Your task to perform on an android device: Search for the best rated wireless headphones on Amazon. Image 0: 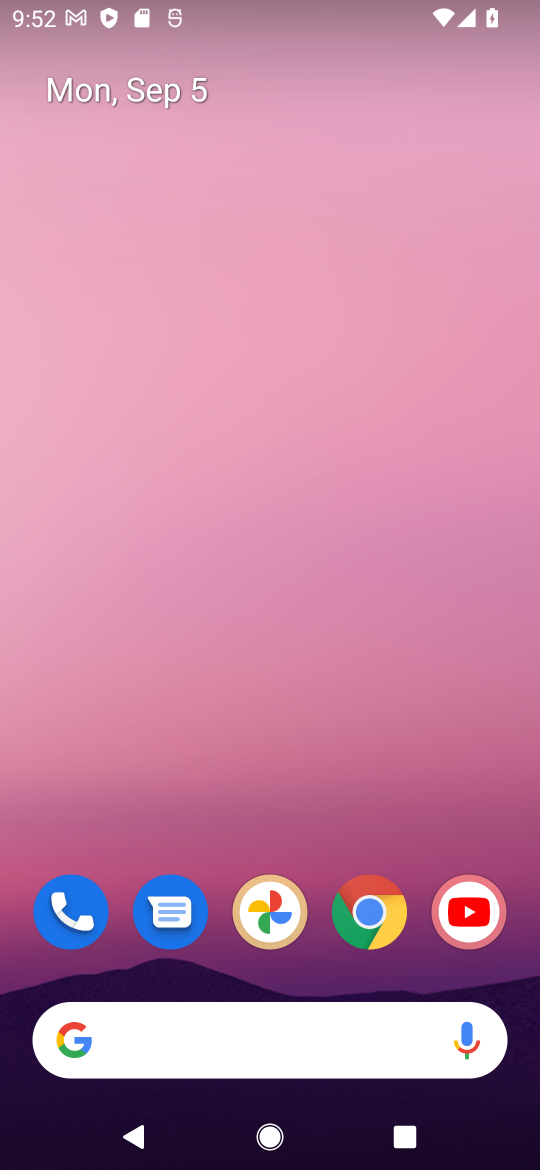
Step 0: click (368, 920)
Your task to perform on an android device: Search for the best rated wireless headphones on Amazon. Image 1: 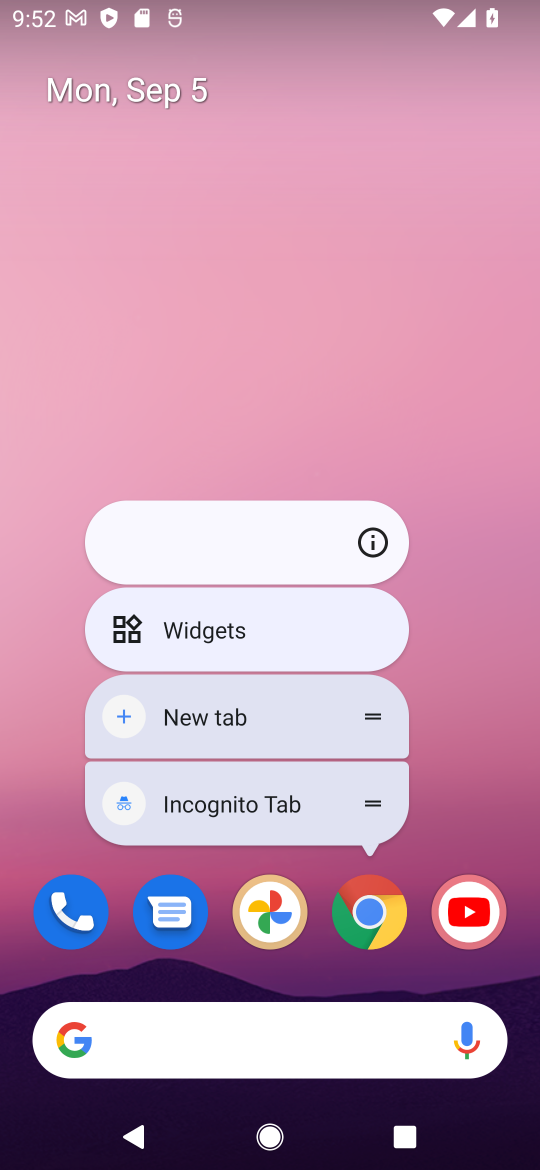
Step 1: click (370, 916)
Your task to perform on an android device: Search for the best rated wireless headphones on Amazon. Image 2: 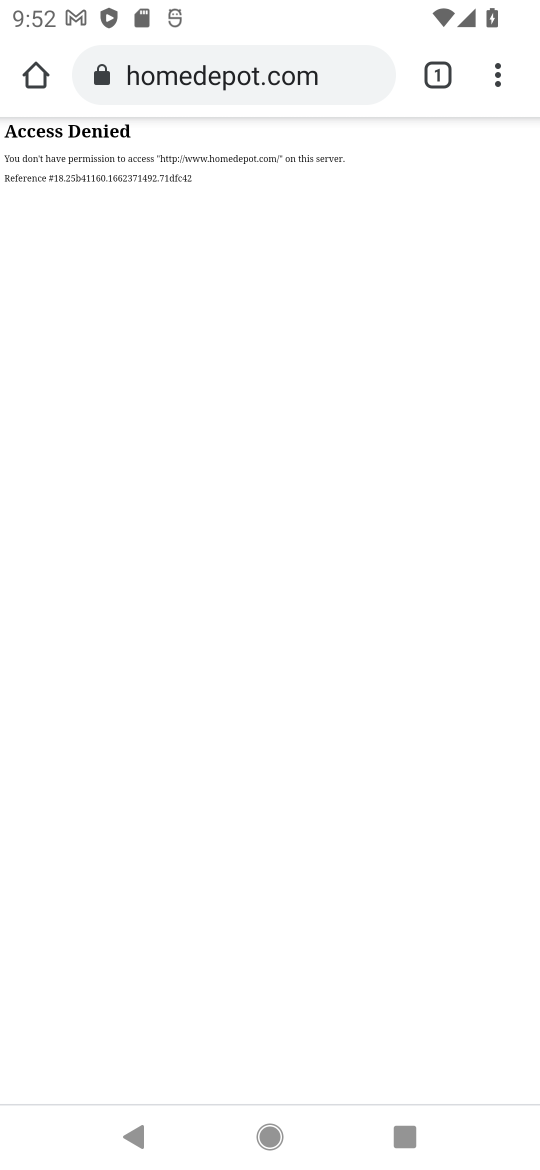
Step 2: click (256, 87)
Your task to perform on an android device: Search for the best rated wireless headphones on Amazon. Image 3: 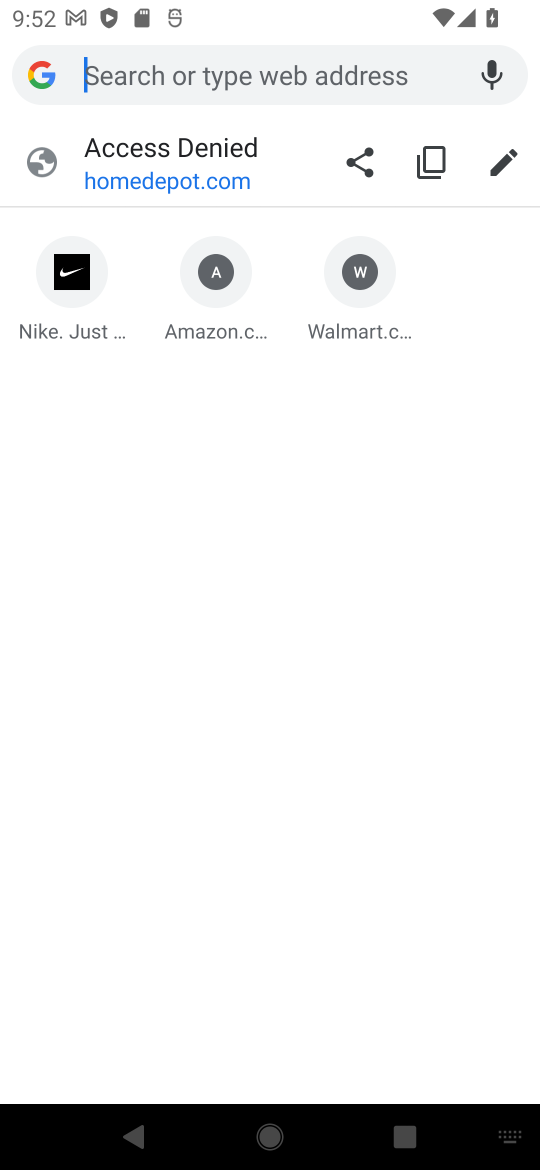
Step 3: type "amazon"
Your task to perform on an android device: Search for the best rated wireless headphones on Amazon. Image 4: 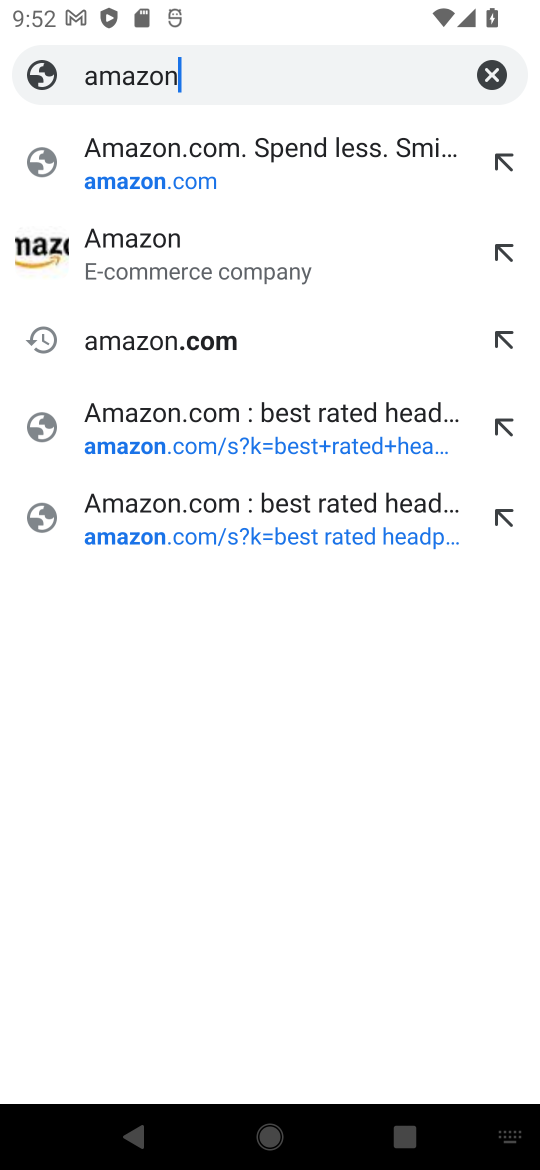
Step 4: click (145, 187)
Your task to perform on an android device: Search for the best rated wireless headphones on Amazon. Image 5: 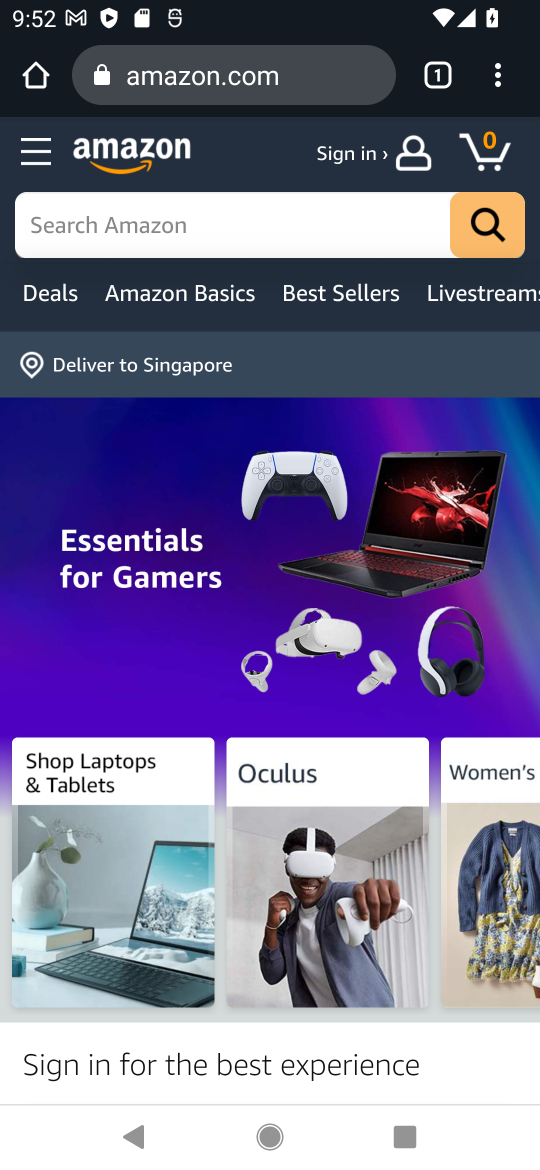
Step 5: click (181, 222)
Your task to perform on an android device: Search for the best rated wireless headphones on Amazon. Image 6: 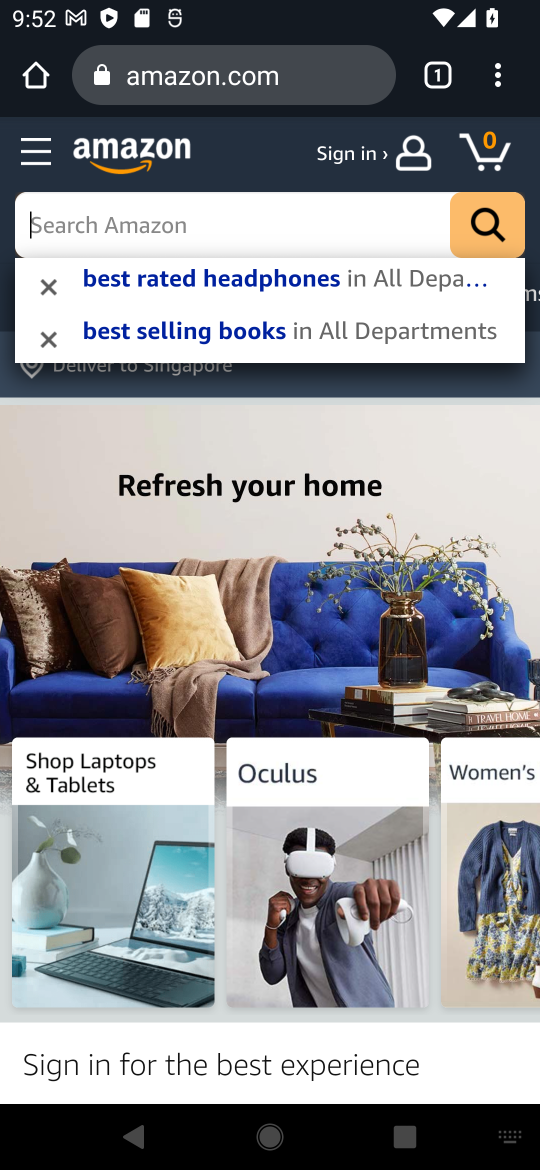
Step 6: type " best rated wireless headphones"
Your task to perform on an android device: Search for the best rated wireless headphones on Amazon. Image 7: 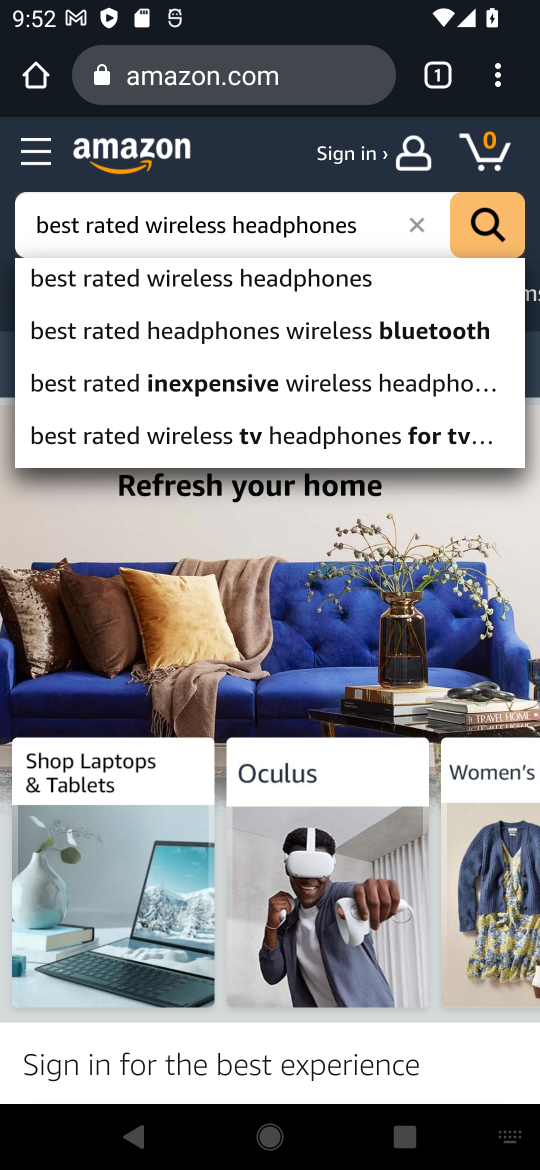
Step 7: click (223, 285)
Your task to perform on an android device: Search for the best rated wireless headphones on Amazon. Image 8: 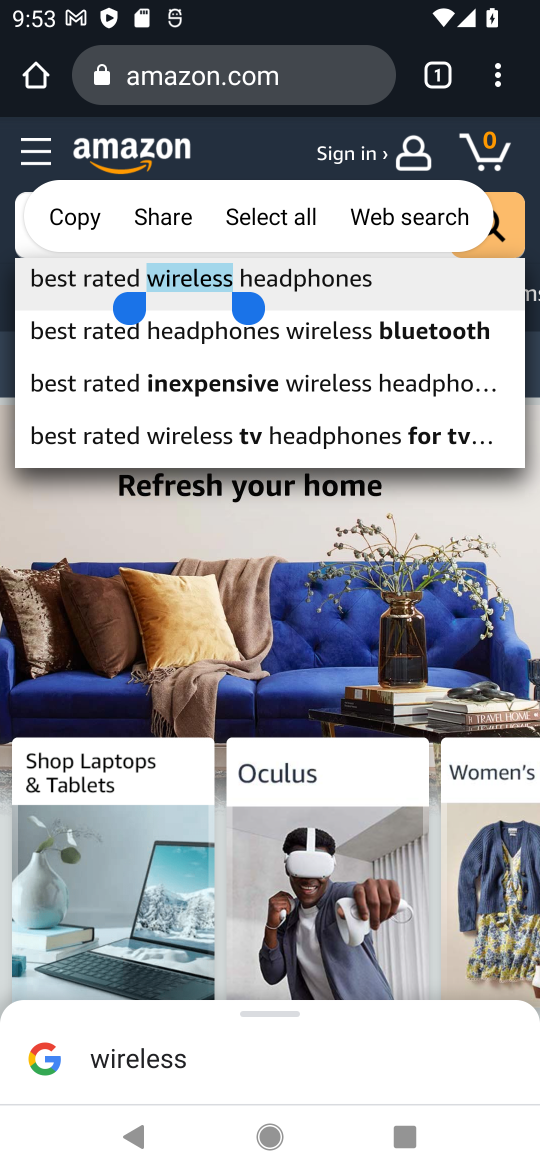
Step 8: click (285, 284)
Your task to perform on an android device: Search for the best rated wireless headphones on Amazon. Image 9: 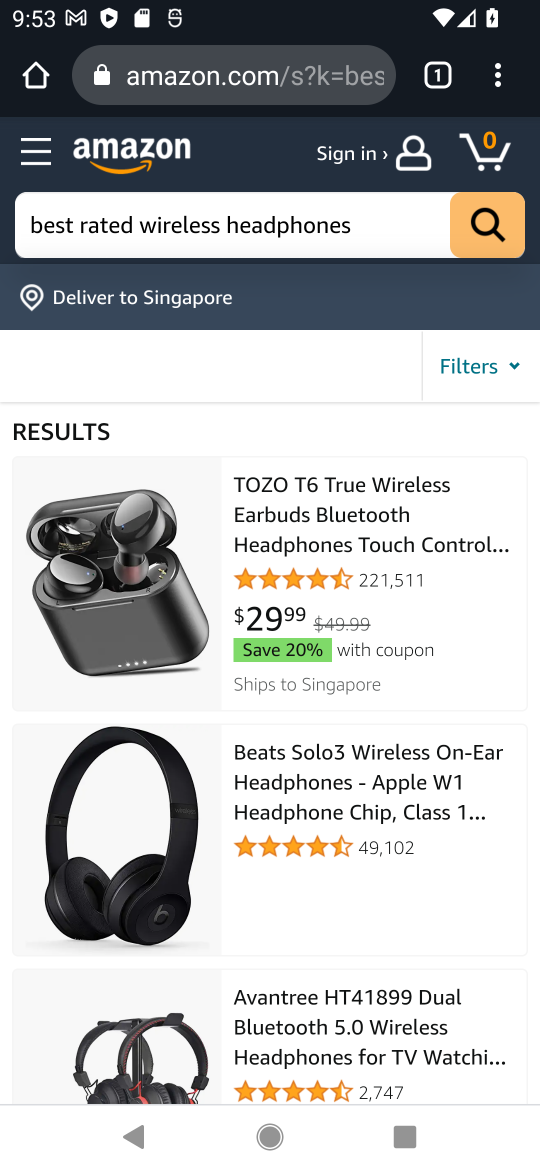
Step 9: task complete